Your task to perform on an android device: Go to Yahoo.com Image 0: 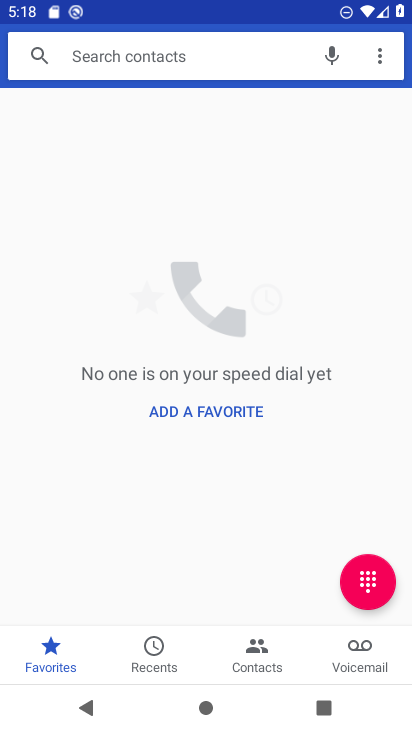
Step 0: press back button
Your task to perform on an android device: Go to Yahoo.com Image 1: 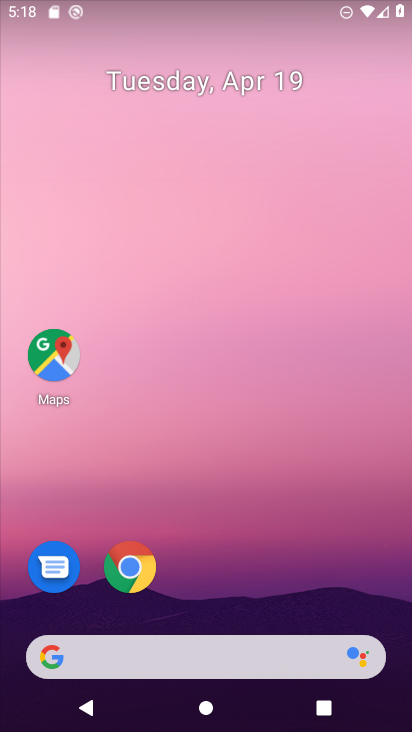
Step 1: click (127, 572)
Your task to perform on an android device: Go to Yahoo.com Image 2: 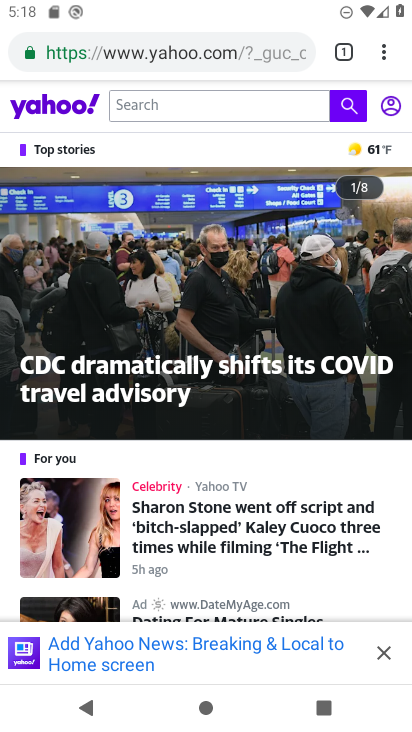
Step 2: task complete